Your task to perform on an android device: What is the recent news? Image 0: 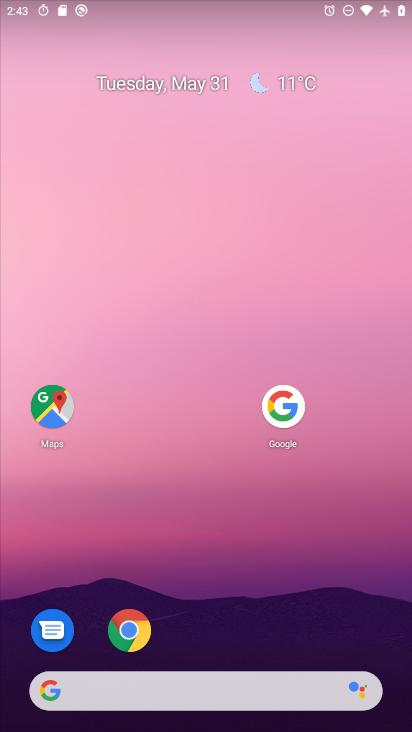
Step 0: press home button
Your task to perform on an android device: What is the recent news? Image 1: 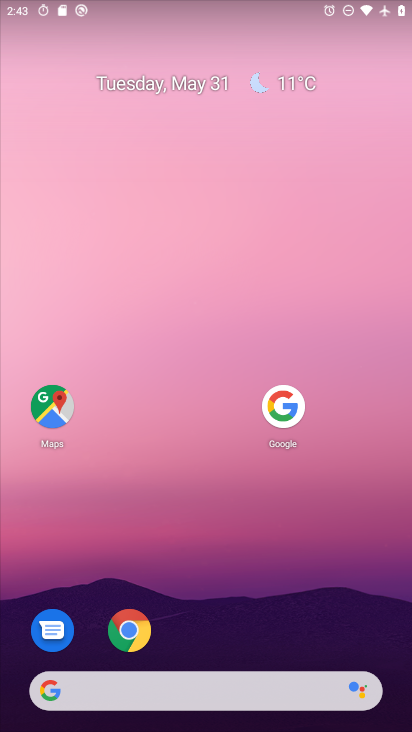
Step 1: click (51, 696)
Your task to perform on an android device: What is the recent news? Image 2: 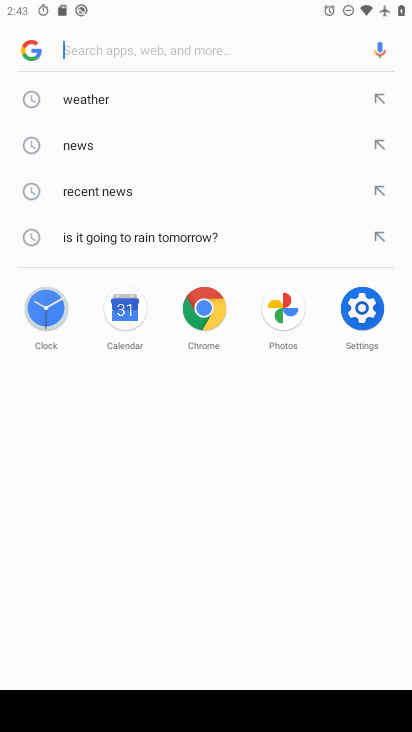
Step 2: click (92, 147)
Your task to perform on an android device: What is the recent news? Image 3: 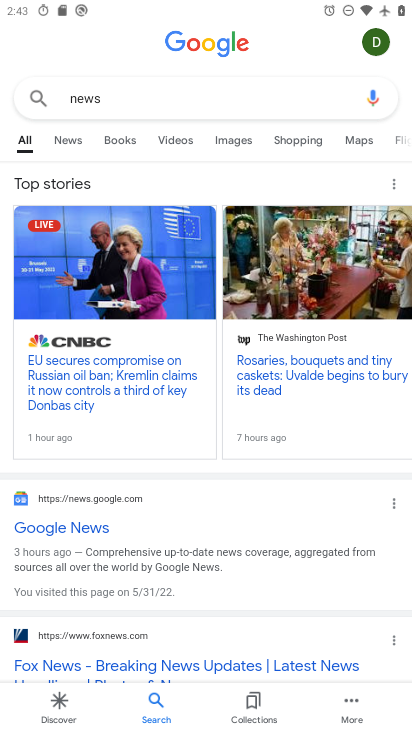
Step 3: click (73, 137)
Your task to perform on an android device: What is the recent news? Image 4: 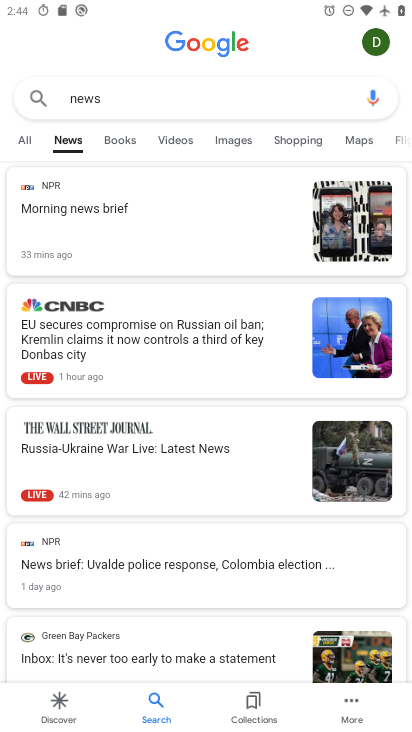
Step 4: task complete